Your task to perform on an android device: toggle notifications settings in the gmail app Image 0: 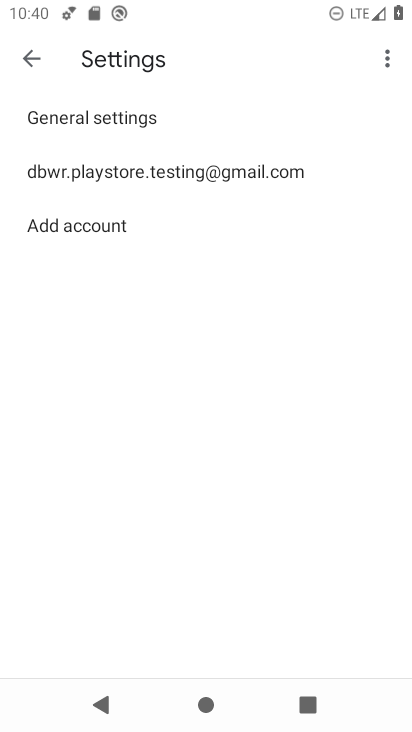
Step 0: click (93, 118)
Your task to perform on an android device: toggle notifications settings in the gmail app Image 1: 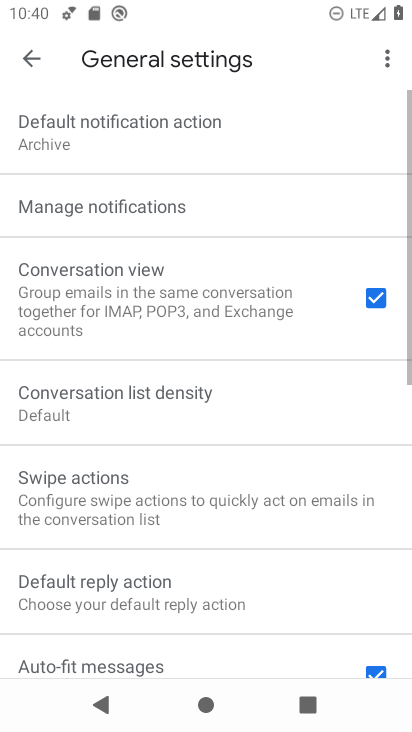
Step 1: click (93, 219)
Your task to perform on an android device: toggle notifications settings in the gmail app Image 2: 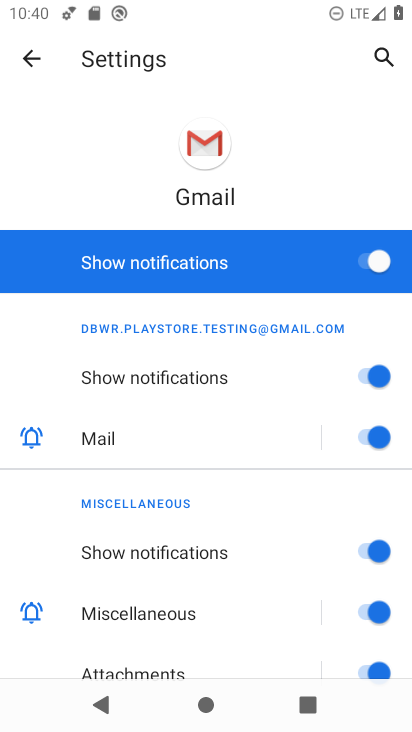
Step 2: click (379, 263)
Your task to perform on an android device: toggle notifications settings in the gmail app Image 3: 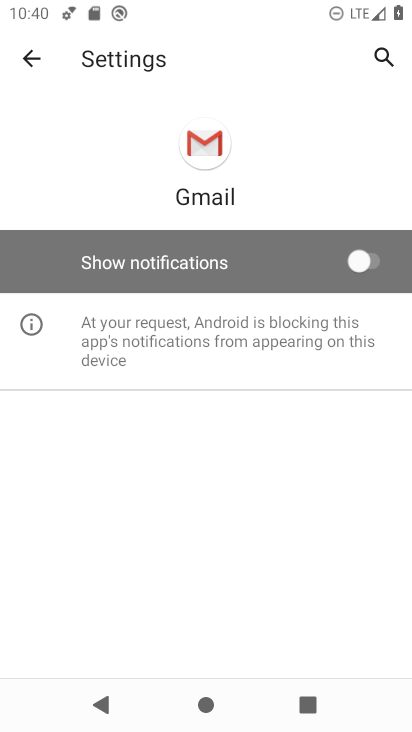
Step 3: task complete